Your task to perform on an android device: Go to Yahoo.com Image 0: 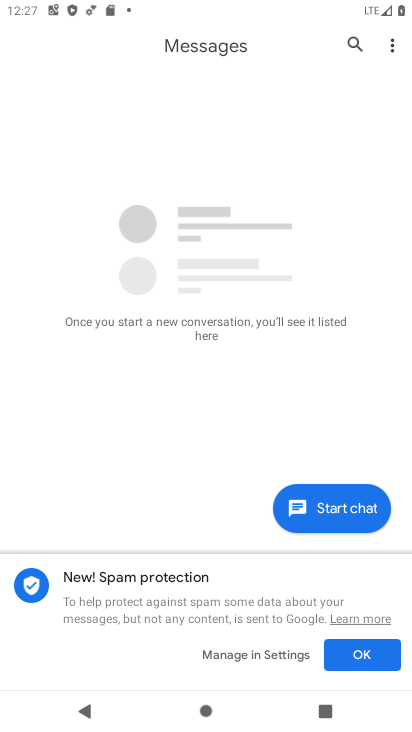
Step 0: press home button
Your task to perform on an android device: Go to Yahoo.com Image 1: 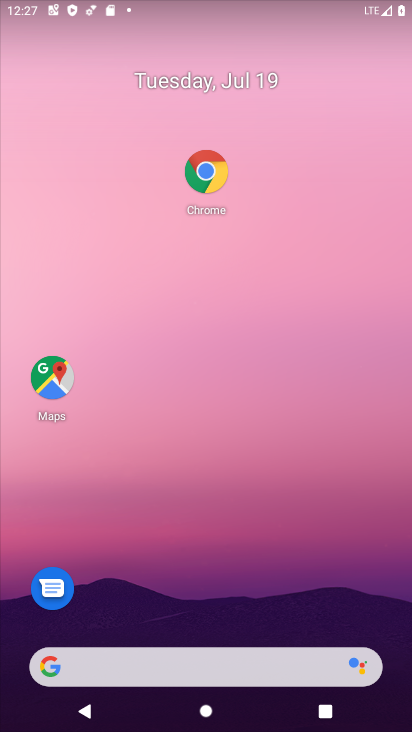
Step 1: click (205, 155)
Your task to perform on an android device: Go to Yahoo.com Image 2: 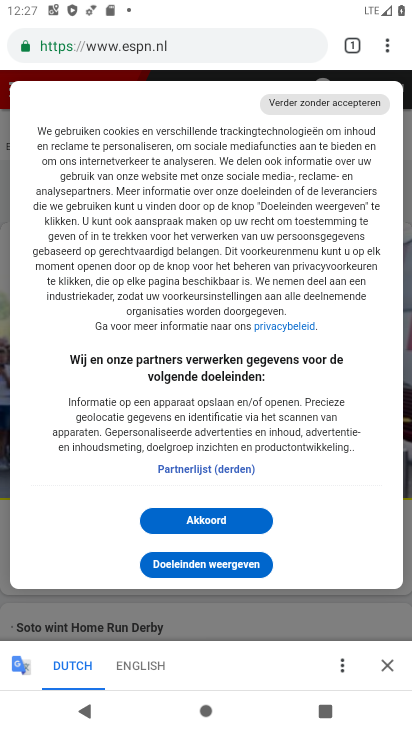
Step 2: click (205, 183)
Your task to perform on an android device: Go to Yahoo.com Image 3: 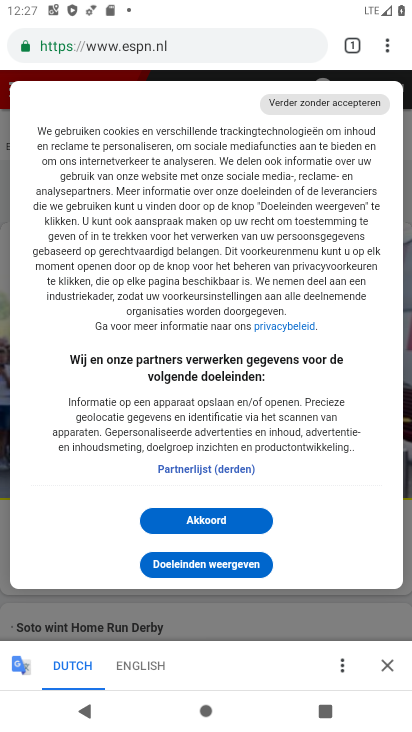
Step 3: click (357, 44)
Your task to perform on an android device: Go to Yahoo.com Image 4: 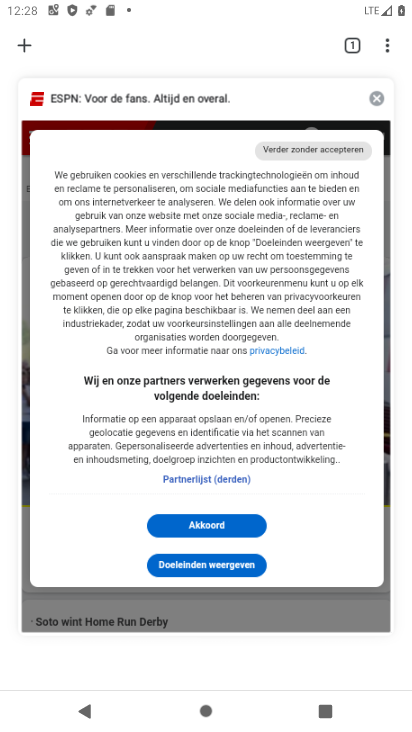
Step 4: click (30, 53)
Your task to perform on an android device: Go to Yahoo.com Image 5: 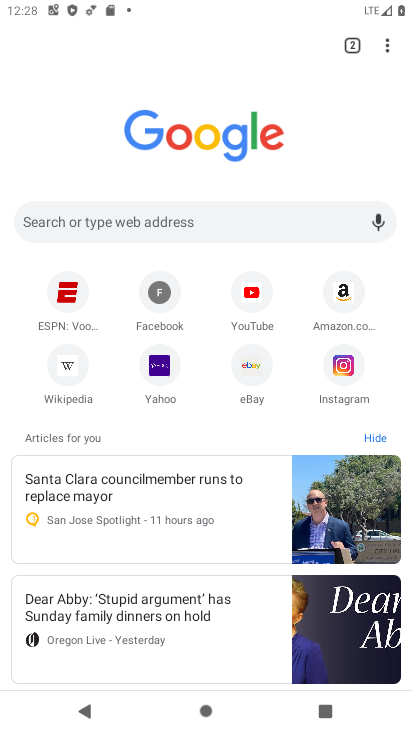
Step 5: click (157, 377)
Your task to perform on an android device: Go to Yahoo.com Image 6: 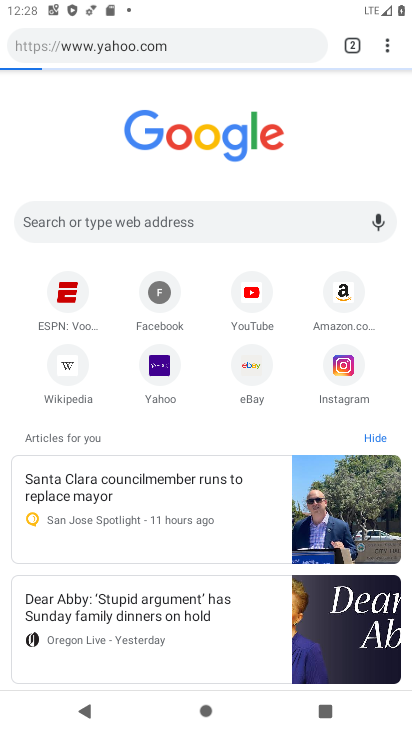
Step 6: click (157, 377)
Your task to perform on an android device: Go to Yahoo.com Image 7: 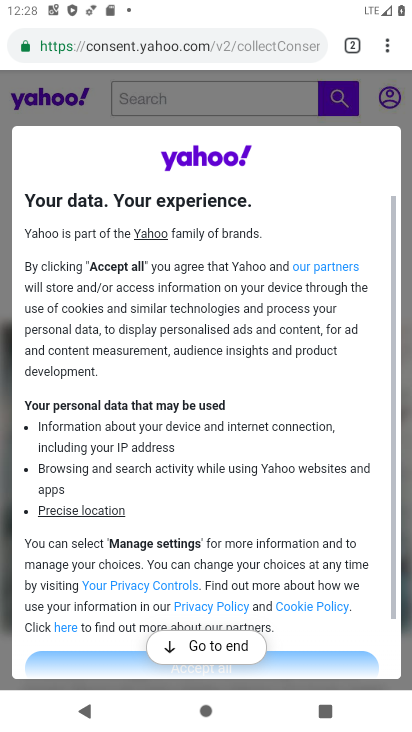
Step 7: task complete